Your task to perform on an android device: Open the phone app and click the voicemail tab. Image 0: 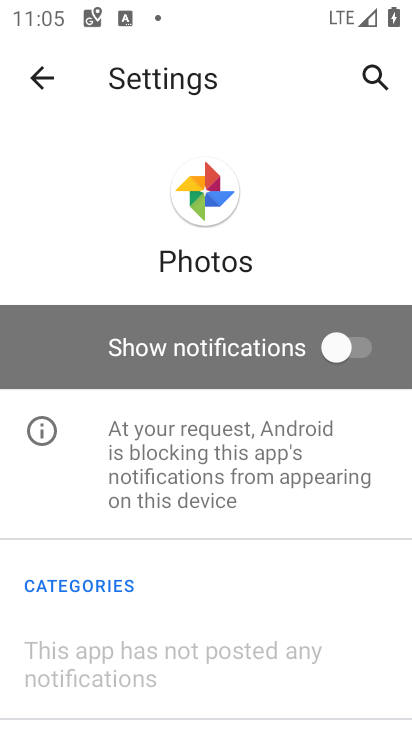
Step 0: press home button
Your task to perform on an android device: Open the phone app and click the voicemail tab. Image 1: 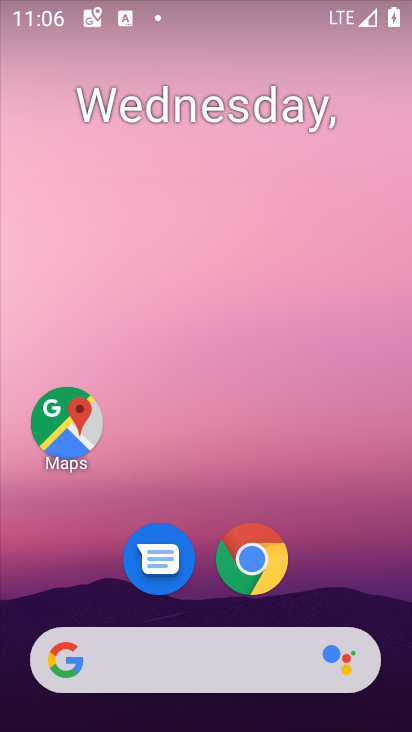
Step 1: drag from (286, 586) to (372, 0)
Your task to perform on an android device: Open the phone app and click the voicemail tab. Image 2: 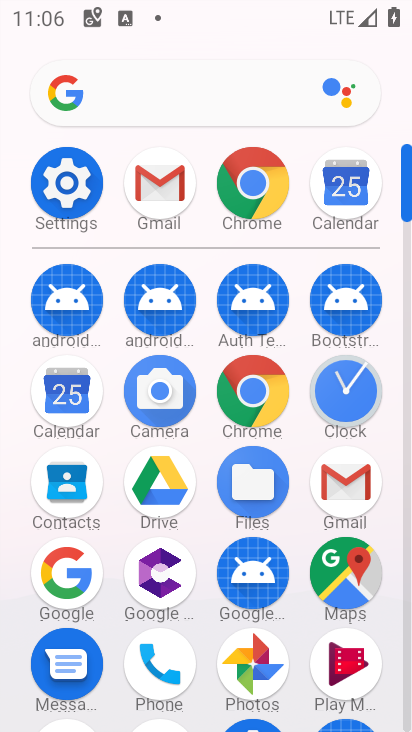
Step 2: click (167, 664)
Your task to perform on an android device: Open the phone app and click the voicemail tab. Image 3: 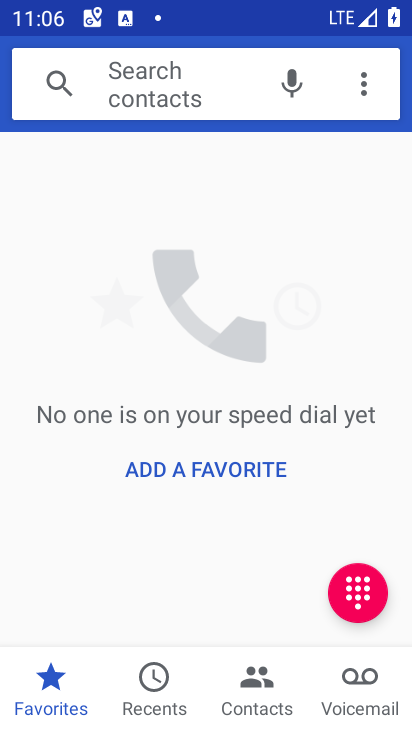
Step 3: click (355, 680)
Your task to perform on an android device: Open the phone app and click the voicemail tab. Image 4: 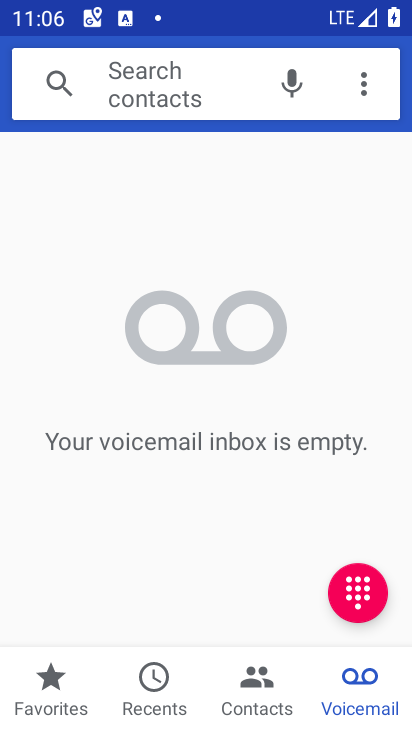
Step 4: task complete